Your task to perform on an android device: turn on wifi Image 0: 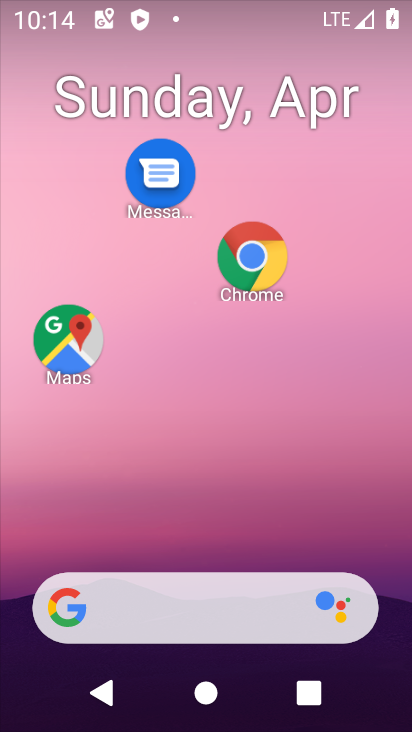
Step 0: drag from (228, 645) to (206, 136)
Your task to perform on an android device: turn on wifi Image 1: 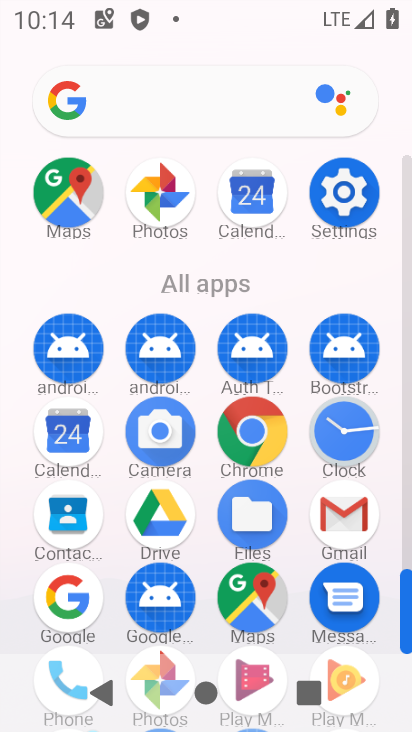
Step 1: click (338, 196)
Your task to perform on an android device: turn on wifi Image 2: 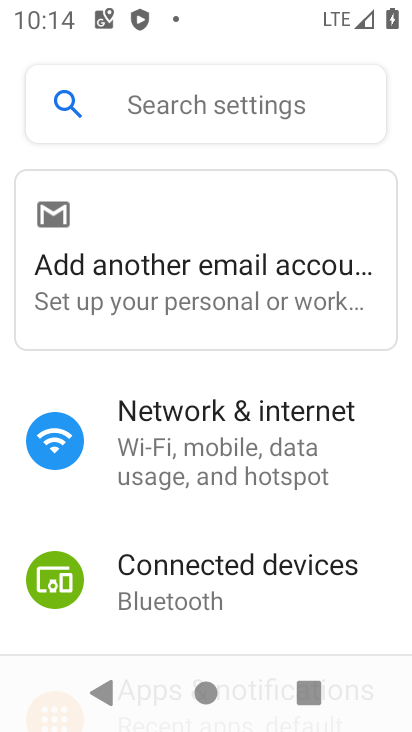
Step 2: click (185, 451)
Your task to perform on an android device: turn on wifi Image 3: 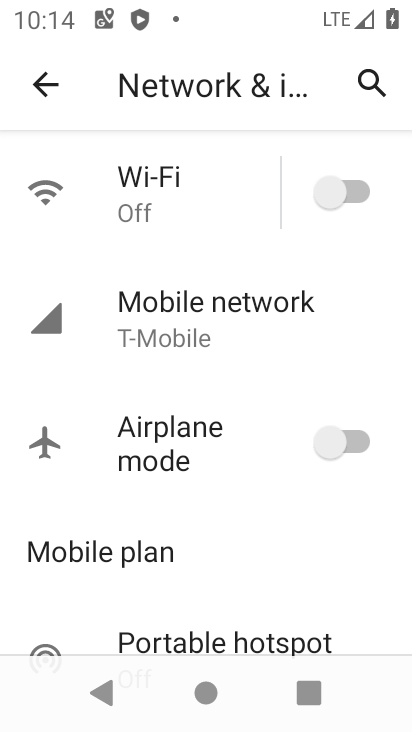
Step 3: click (350, 189)
Your task to perform on an android device: turn on wifi Image 4: 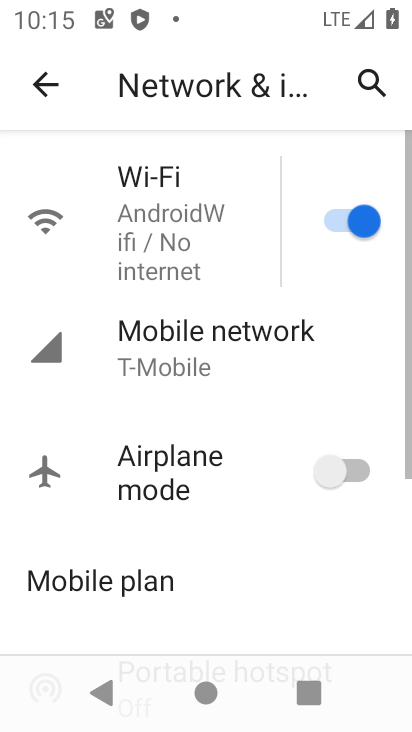
Step 4: task complete